Your task to perform on an android device: Open calendar and show me the fourth week of next month Image 0: 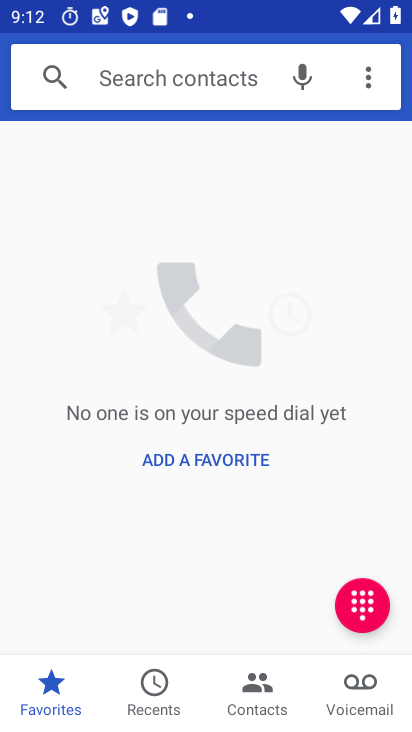
Step 0: press home button
Your task to perform on an android device: Open calendar and show me the fourth week of next month Image 1: 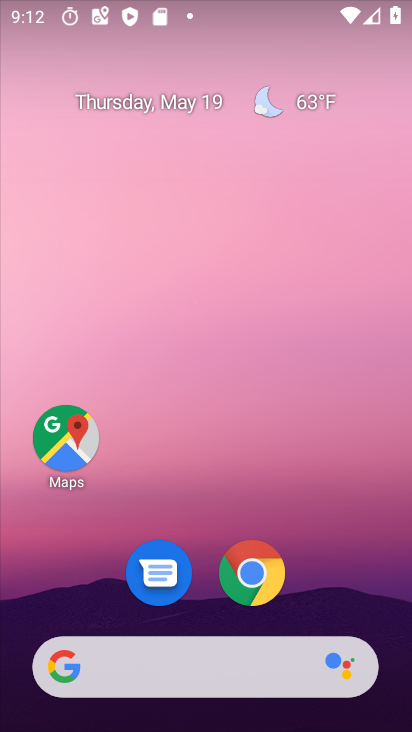
Step 1: drag from (323, 616) to (352, 15)
Your task to perform on an android device: Open calendar and show me the fourth week of next month Image 2: 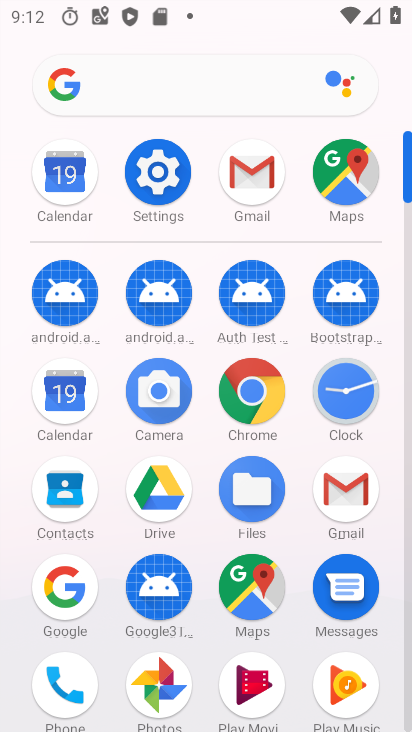
Step 2: click (61, 180)
Your task to perform on an android device: Open calendar and show me the fourth week of next month Image 3: 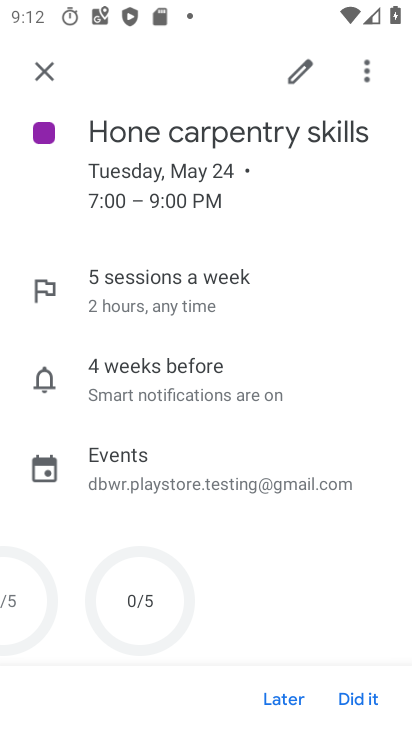
Step 3: click (35, 76)
Your task to perform on an android device: Open calendar and show me the fourth week of next month Image 4: 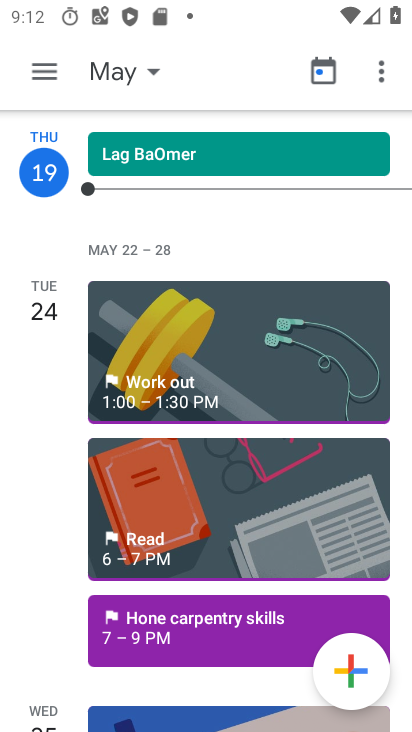
Step 4: click (152, 68)
Your task to perform on an android device: Open calendar and show me the fourth week of next month Image 5: 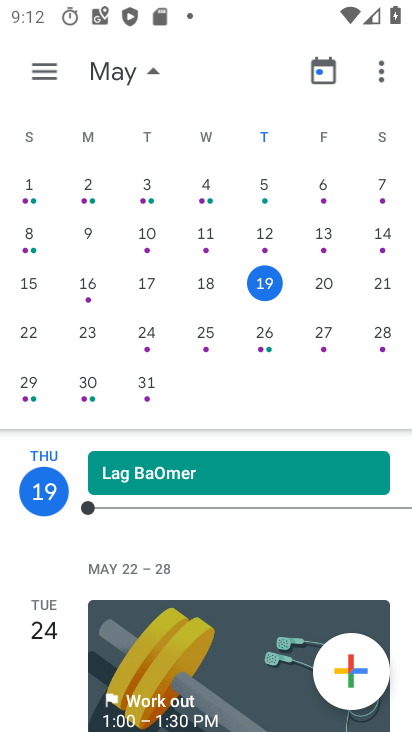
Step 5: drag from (328, 314) to (12, 96)
Your task to perform on an android device: Open calendar and show me the fourth week of next month Image 6: 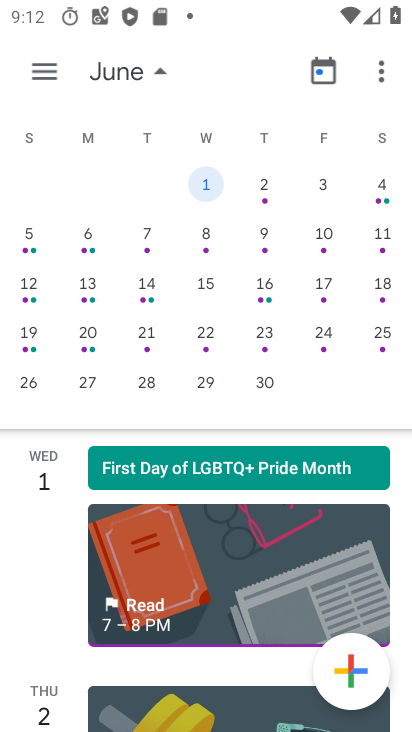
Step 6: click (49, 69)
Your task to perform on an android device: Open calendar and show me the fourth week of next month Image 7: 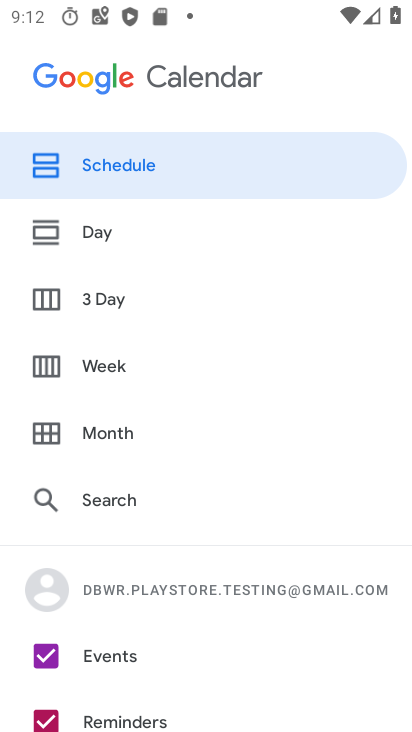
Step 7: click (61, 371)
Your task to perform on an android device: Open calendar and show me the fourth week of next month Image 8: 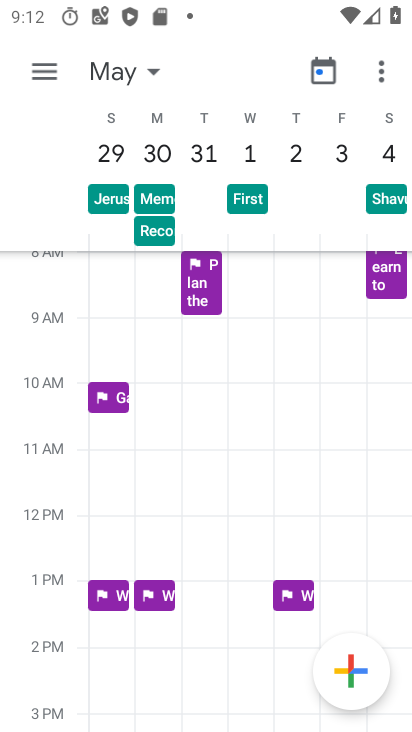
Step 8: task complete